Your task to perform on an android device: move an email to a new category in the gmail app Image 0: 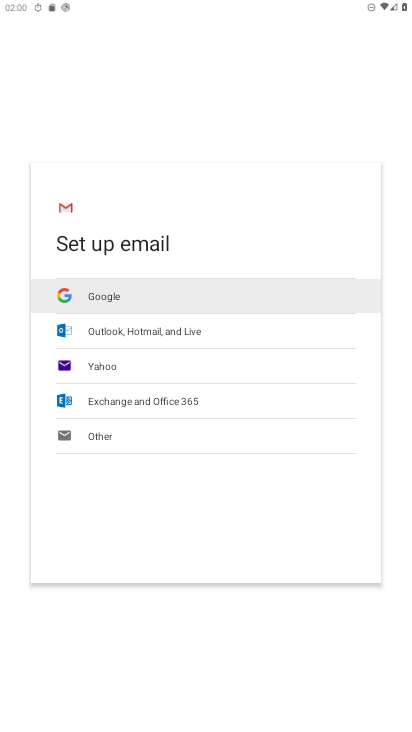
Step 0: press home button
Your task to perform on an android device: move an email to a new category in the gmail app Image 1: 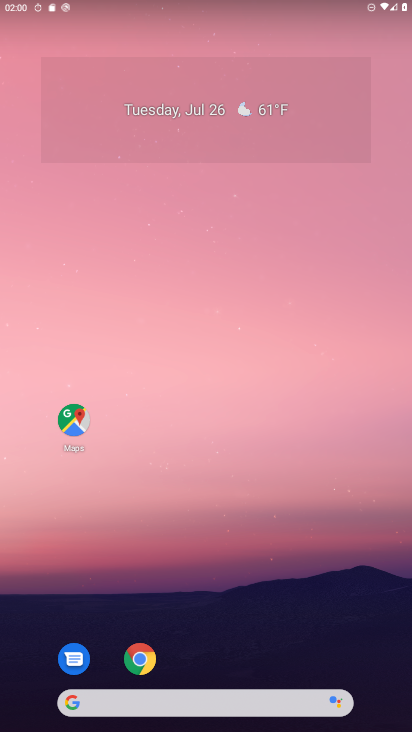
Step 1: drag from (24, 706) to (198, 113)
Your task to perform on an android device: move an email to a new category in the gmail app Image 2: 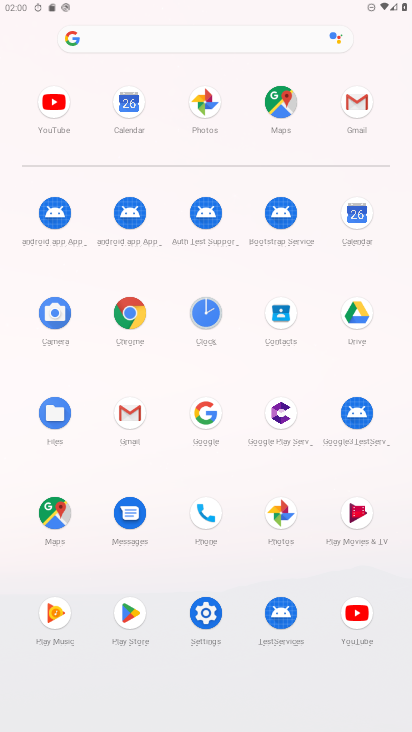
Step 2: click (137, 418)
Your task to perform on an android device: move an email to a new category in the gmail app Image 3: 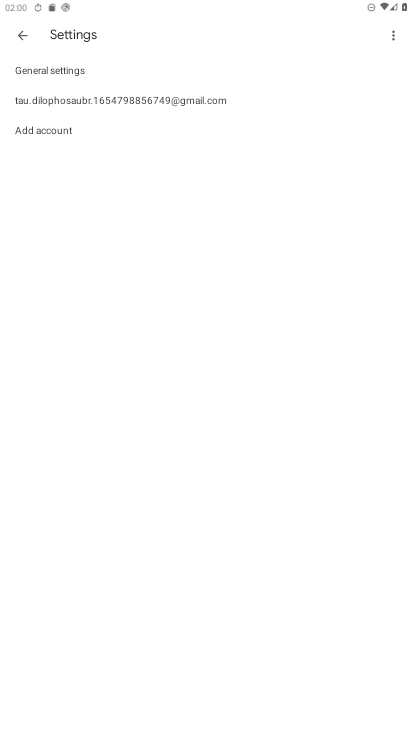
Step 3: click (13, 36)
Your task to perform on an android device: move an email to a new category in the gmail app Image 4: 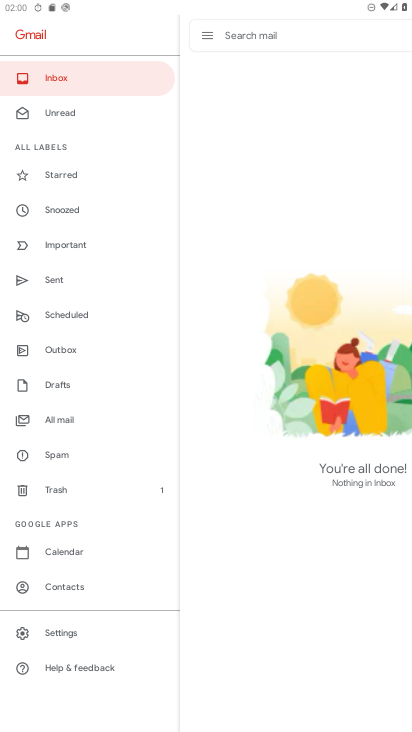
Step 4: click (74, 78)
Your task to perform on an android device: move an email to a new category in the gmail app Image 5: 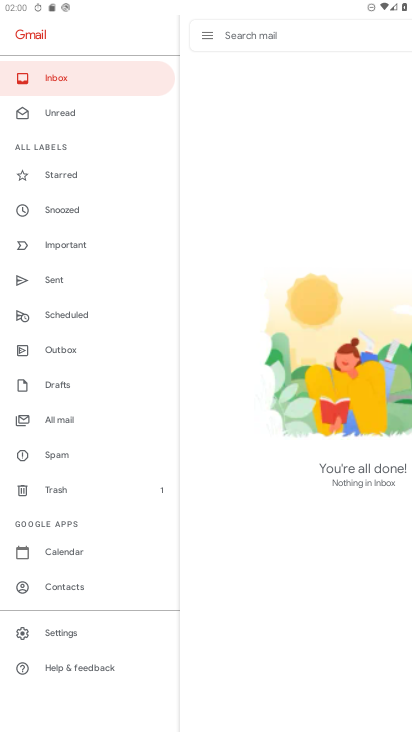
Step 5: task complete